Your task to perform on an android device: find photos in the google photos app Image 0: 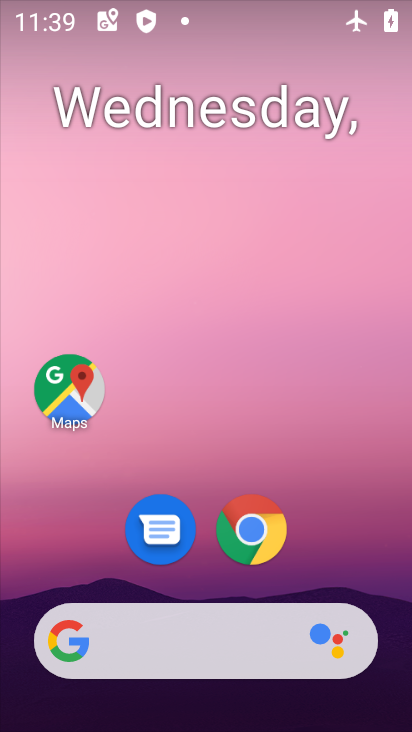
Step 0: drag from (204, 577) to (210, 1)
Your task to perform on an android device: find photos in the google photos app Image 1: 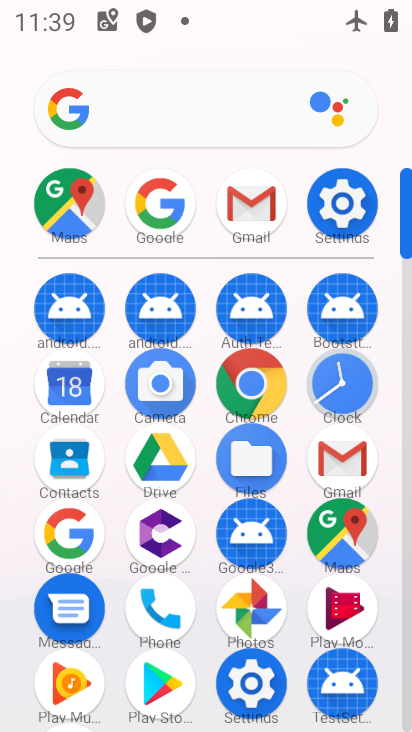
Step 1: click (265, 606)
Your task to perform on an android device: find photos in the google photos app Image 2: 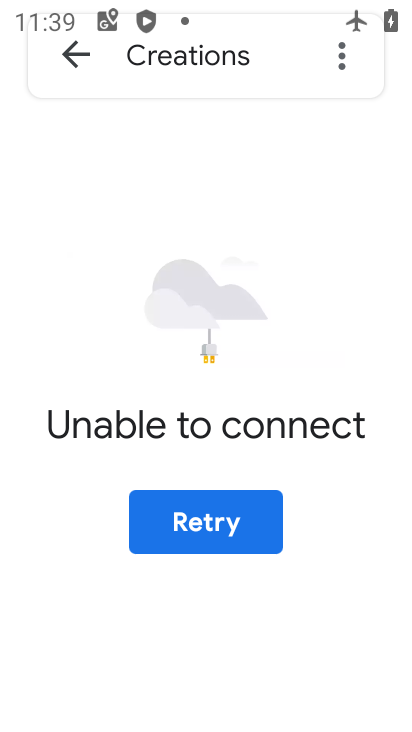
Step 2: press home button
Your task to perform on an android device: find photos in the google photos app Image 3: 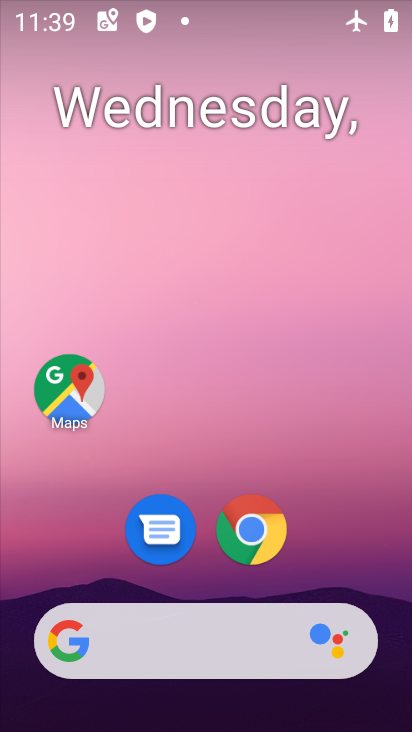
Step 3: drag from (223, 579) to (228, 44)
Your task to perform on an android device: find photos in the google photos app Image 4: 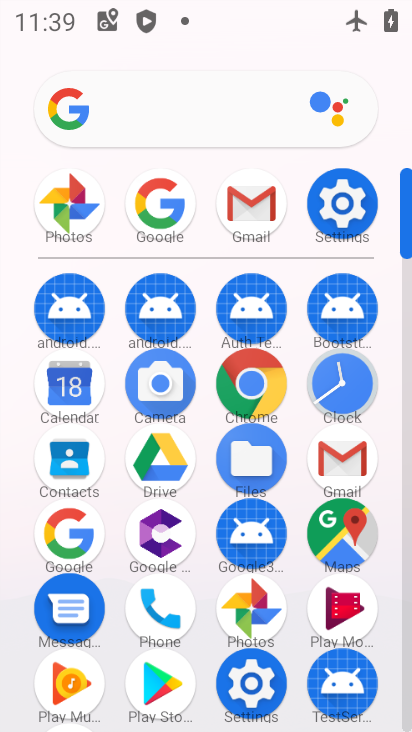
Step 4: click (257, 614)
Your task to perform on an android device: find photos in the google photos app Image 5: 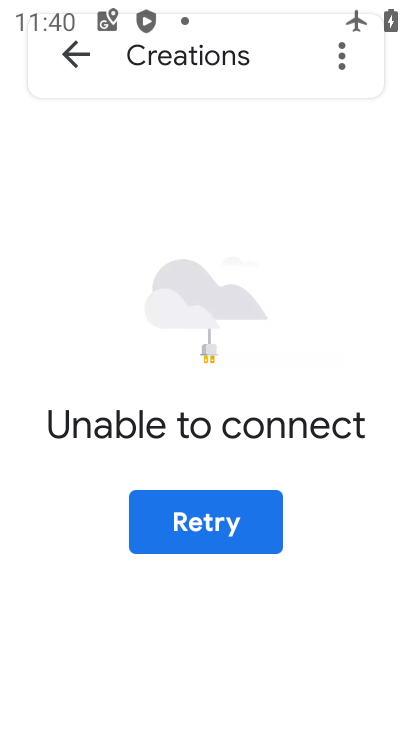
Step 5: click (202, 526)
Your task to perform on an android device: find photos in the google photos app Image 6: 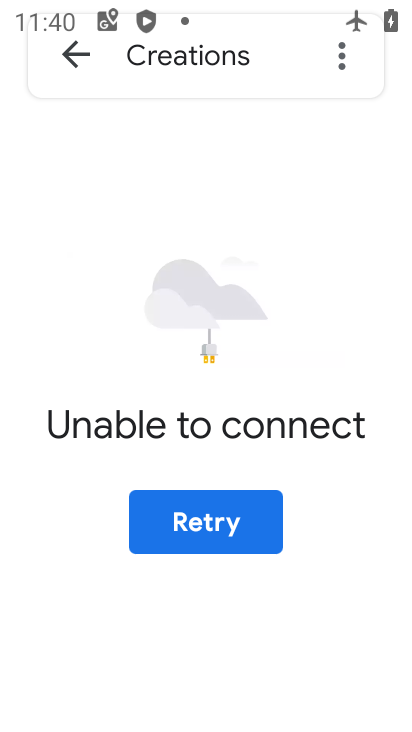
Step 6: click (74, 62)
Your task to perform on an android device: find photos in the google photos app Image 7: 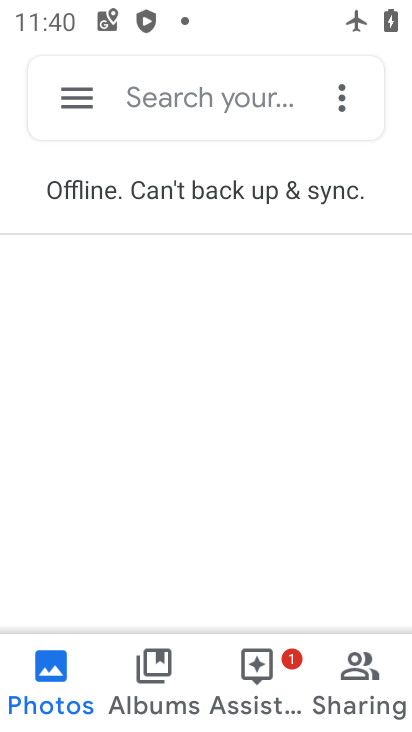
Step 7: click (151, 682)
Your task to perform on an android device: find photos in the google photos app Image 8: 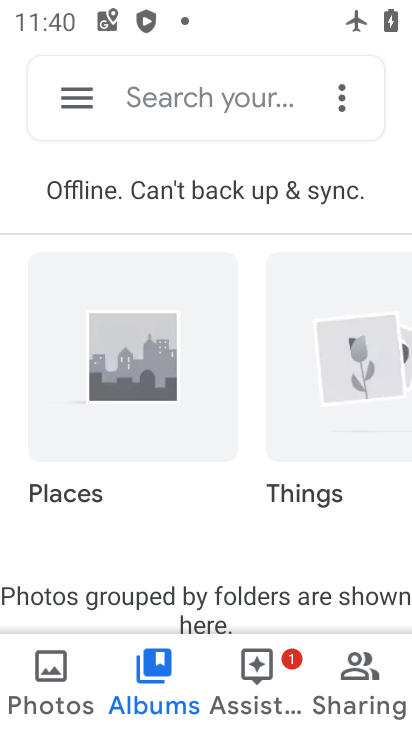
Step 8: click (65, 699)
Your task to perform on an android device: find photos in the google photos app Image 9: 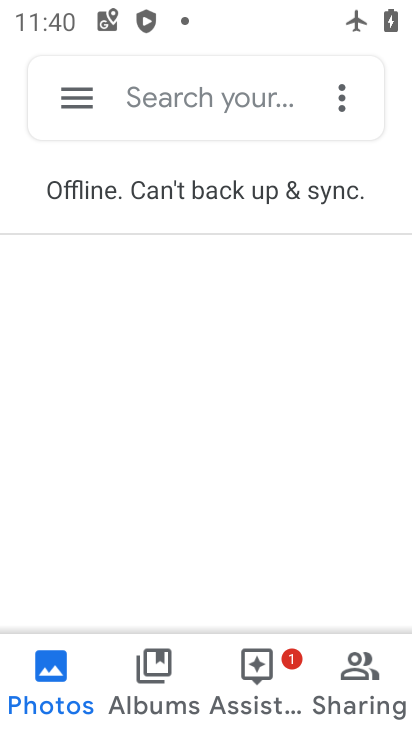
Step 9: task complete